Your task to perform on an android device: toggle wifi Image 0: 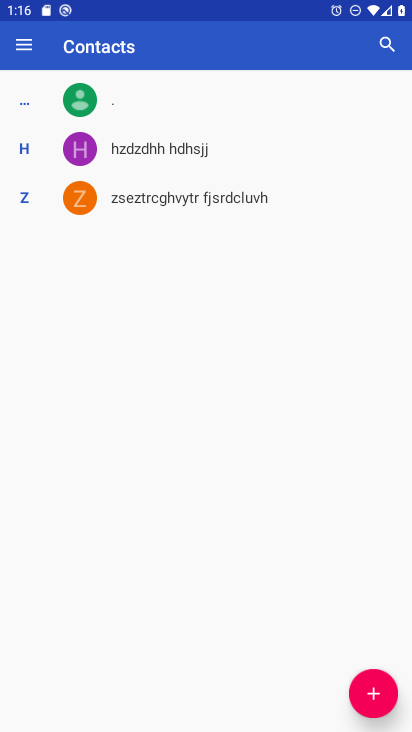
Step 0: press home button
Your task to perform on an android device: toggle wifi Image 1: 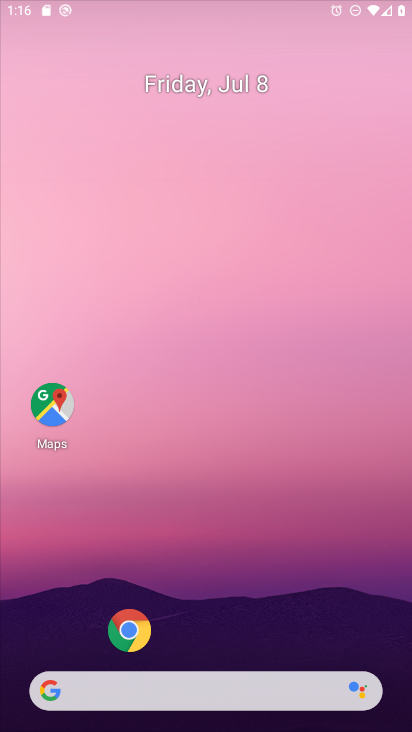
Step 1: drag from (284, 631) to (315, 171)
Your task to perform on an android device: toggle wifi Image 2: 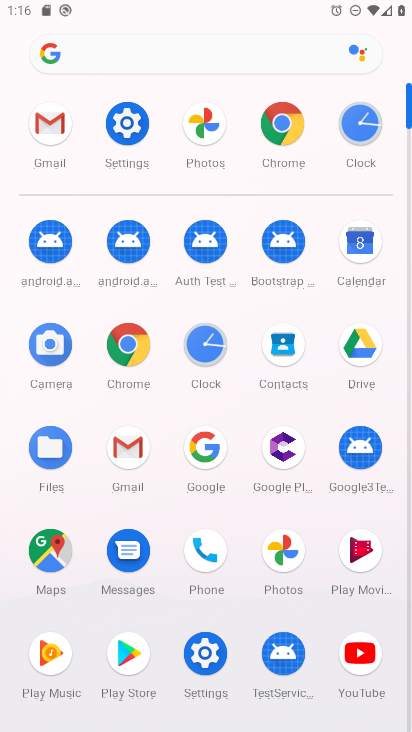
Step 2: click (122, 122)
Your task to perform on an android device: toggle wifi Image 3: 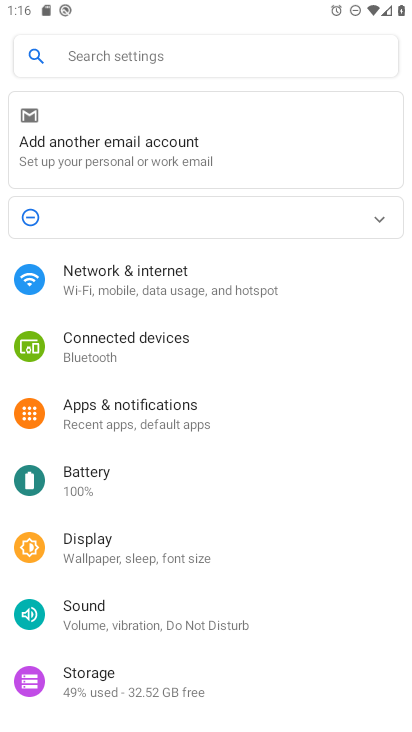
Step 3: click (155, 272)
Your task to perform on an android device: toggle wifi Image 4: 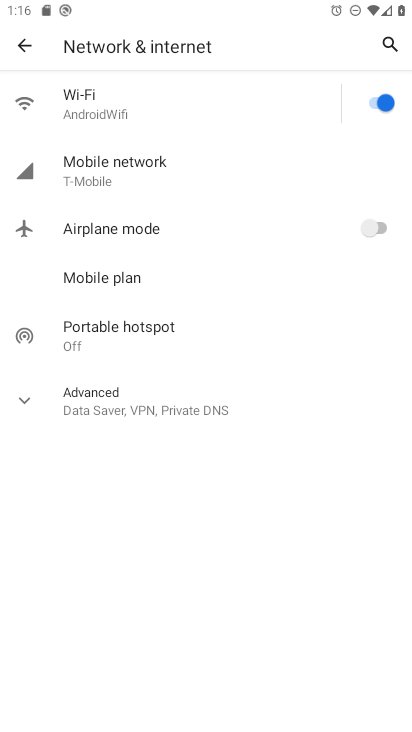
Step 4: click (381, 102)
Your task to perform on an android device: toggle wifi Image 5: 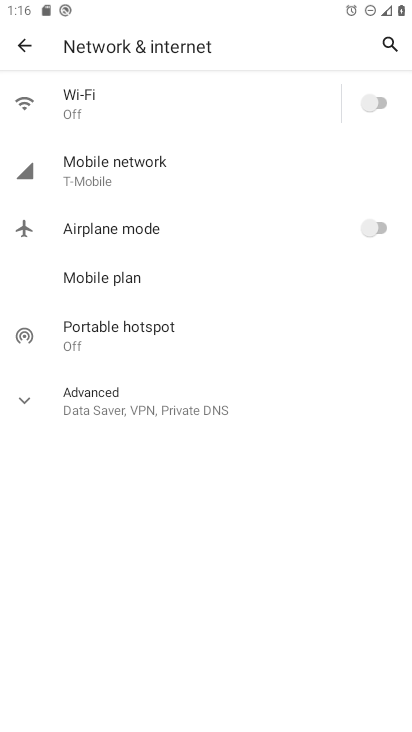
Step 5: task complete